Your task to perform on an android device: Go to accessibility settings Image 0: 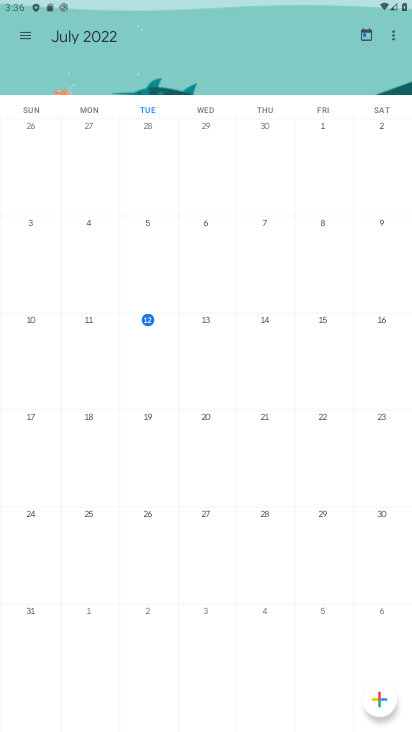
Step 0: press home button
Your task to perform on an android device: Go to accessibility settings Image 1: 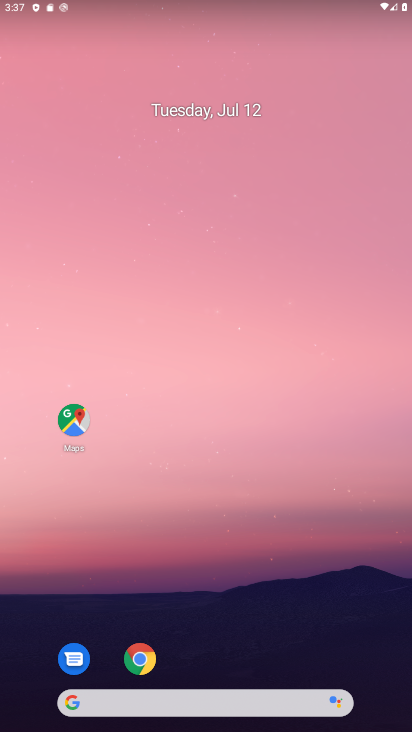
Step 1: drag from (205, 677) to (286, 221)
Your task to perform on an android device: Go to accessibility settings Image 2: 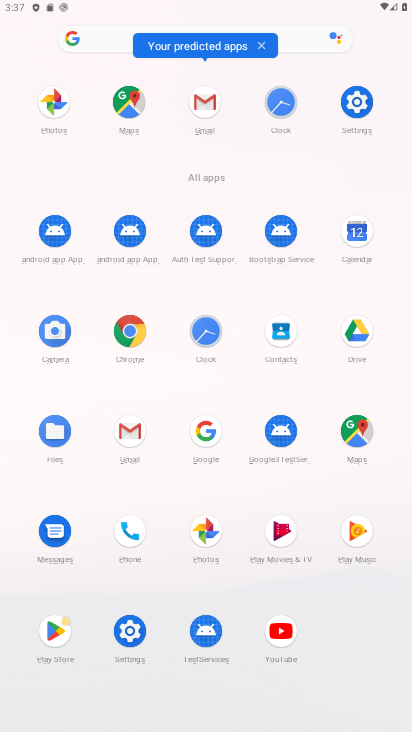
Step 2: click (134, 639)
Your task to perform on an android device: Go to accessibility settings Image 3: 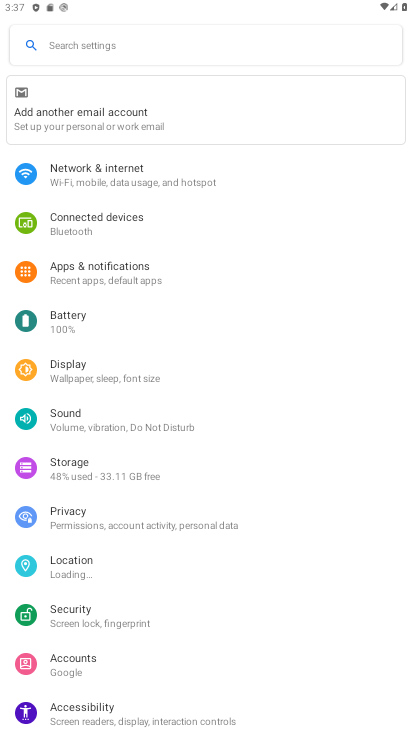
Step 3: drag from (123, 665) to (229, 264)
Your task to perform on an android device: Go to accessibility settings Image 4: 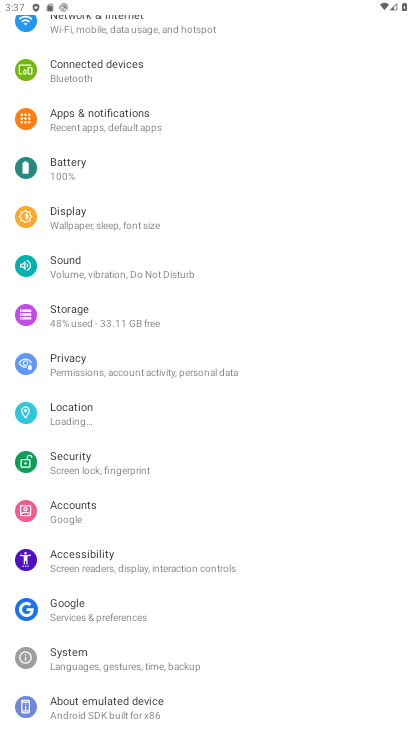
Step 4: click (97, 565)
Your task to perform on an android device: Go to accessibility settings Image 5: 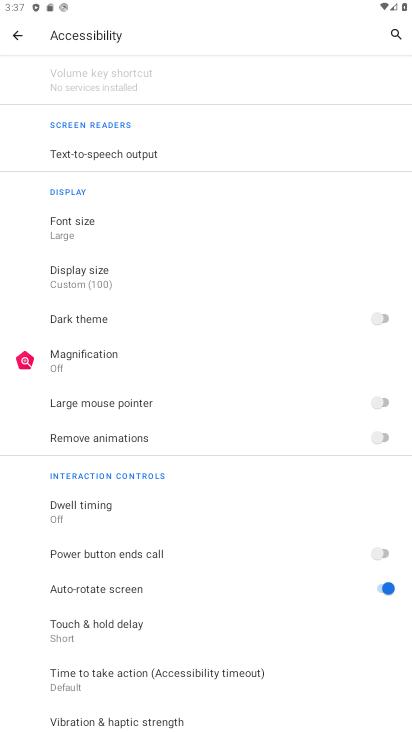
Step 5: task complete